Your task to perform on an android device: Search for seafood restaurants on Google Maps Image 0: 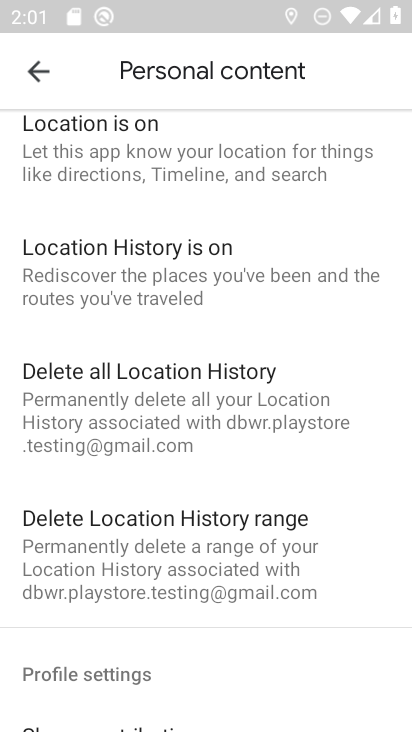
Step 0: click (27, 81)
Your task to perform on an android device: Search for seafood restaurants on Google Maps Image 1: 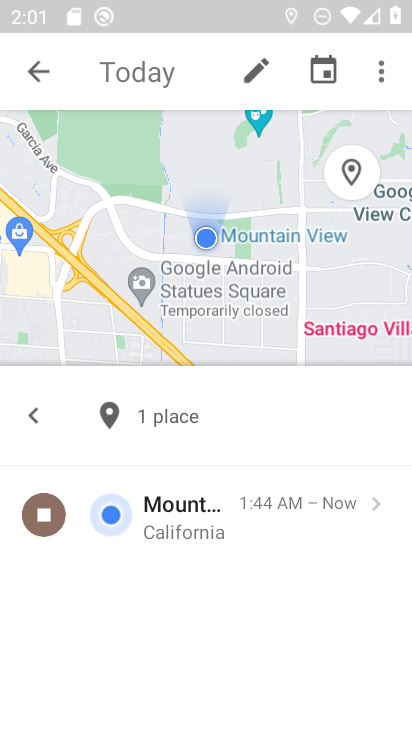
Step 1: press back button
Your task to perform on an android device: Search for seafood restaurants on Google Maps Image 2: 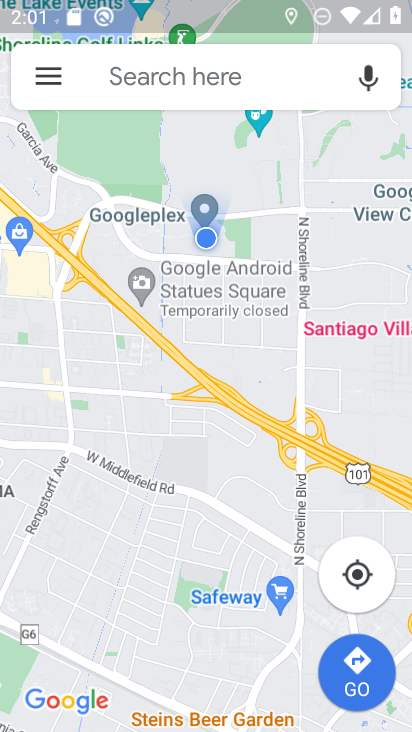
Step 2: click (100, 77)
Your task to perform on an android device: Search for seafood restaurants on Google Maps Image 3: 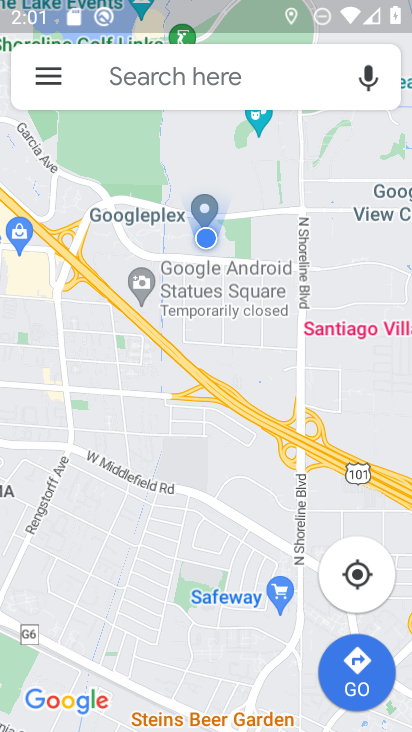
Step 3: click (107, 77)
Your task to perform on an android device: Search for seafood restaurants on Google Maps Image 4: 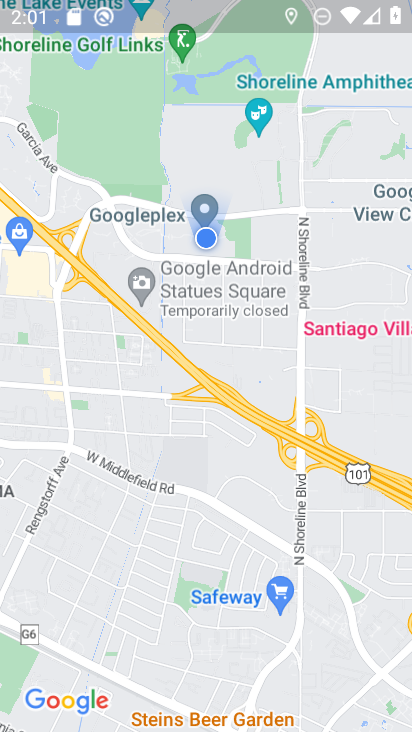
Step 4: drag from (171, 361) to (111, 173)
Your task to perform on an android device: Search for seafood restaurants on Google Maps Image 5: 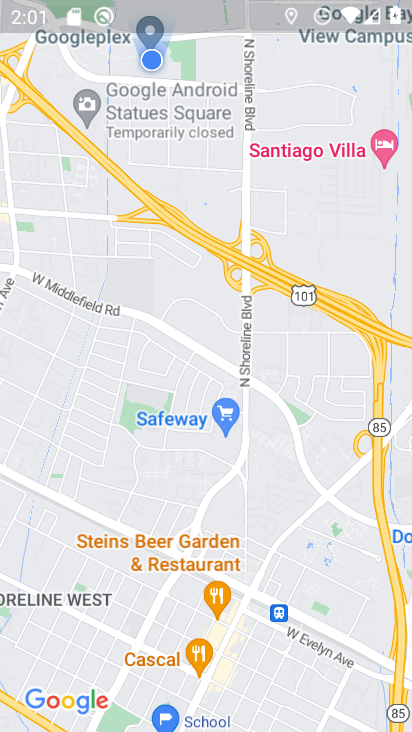
Step 5: drag from (172, 167) to (298, 411)
Your task to perform on an android device: Search for seafood restaurants on Google Maps Image 6: 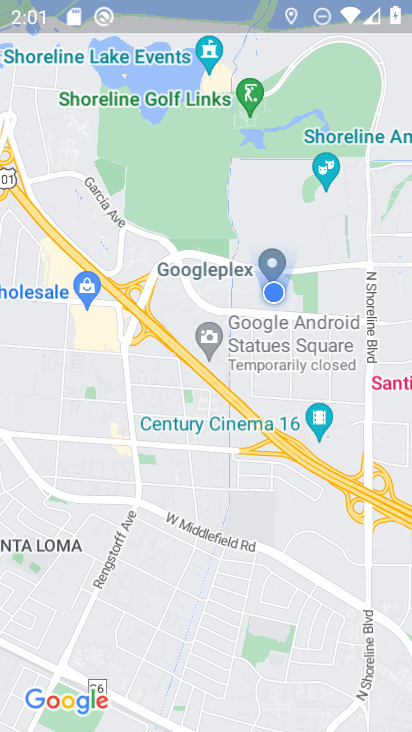
Step 6: drag from (180, 150) to (200, 489)
Your task to perform on an android device: Search for seafood restaurants on Google Maps Image 7: 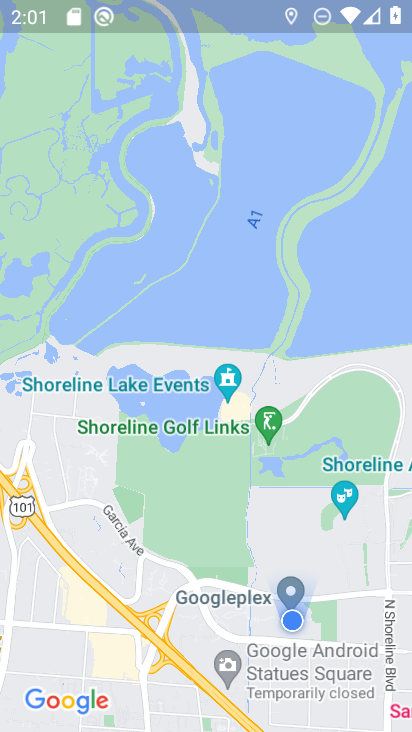
Step 7: press back button
Your task to perform on an android device: Search for seafood restaurants on Google Maps Image 8: 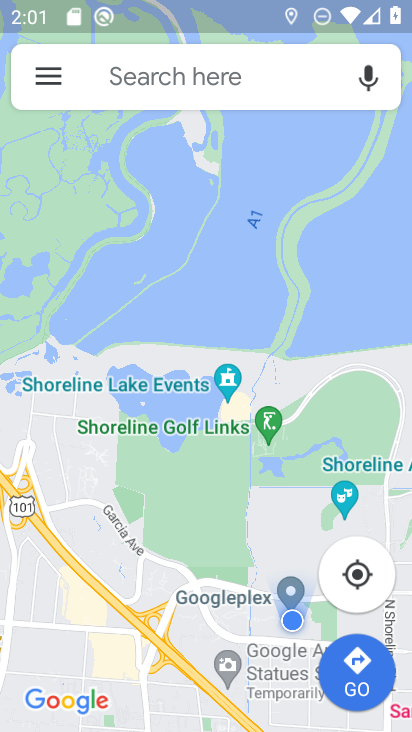
Step 8: click (117, 83)
Your task to perform on an android device: Search for seafood restaurants on Google Maps Image 9: 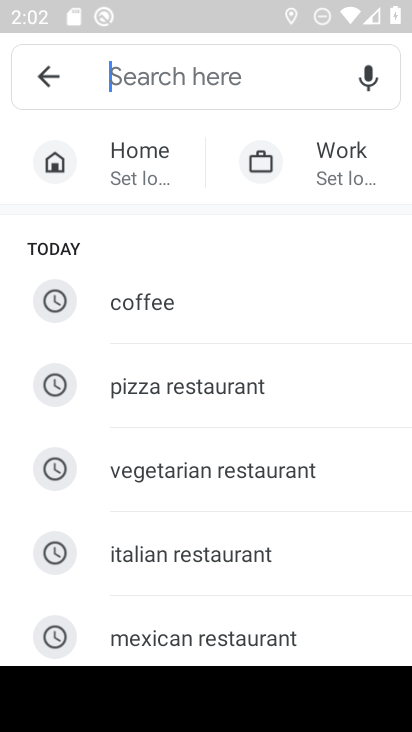
Step 9: type "sea"
Your task to perform on an android device: Search for seafood restaurants on Google Maps Image 10: 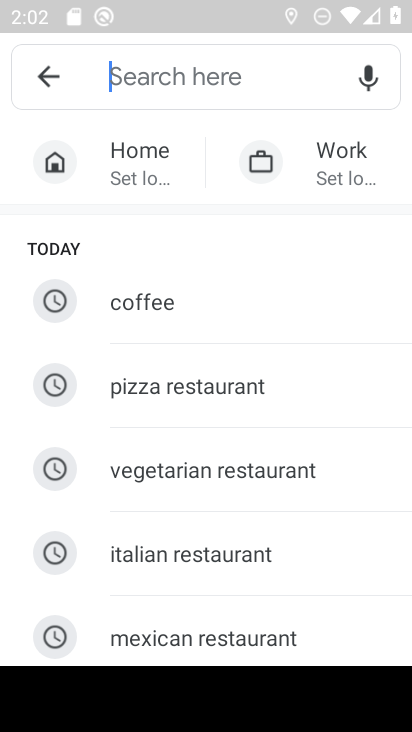
Step 10: click (162, 267)
Your task to perform on an android device: Search for seafood restaurants on Google Maps Image 11: 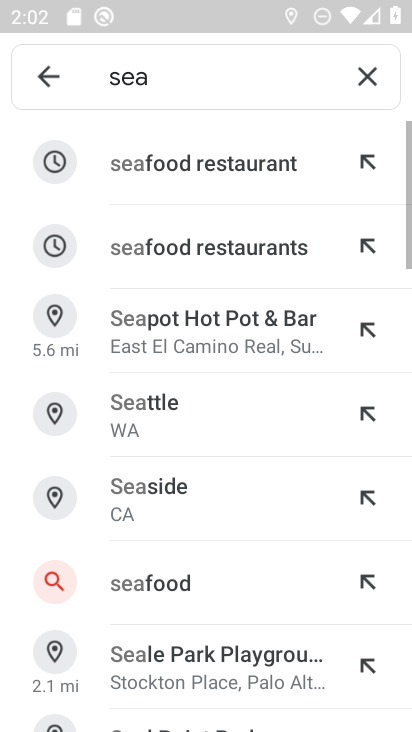
Step 11: drag from (188, 494) to (154, 200)
Your task to perform on an android device: Search for seafood restaurants on Google Maps Image 12: 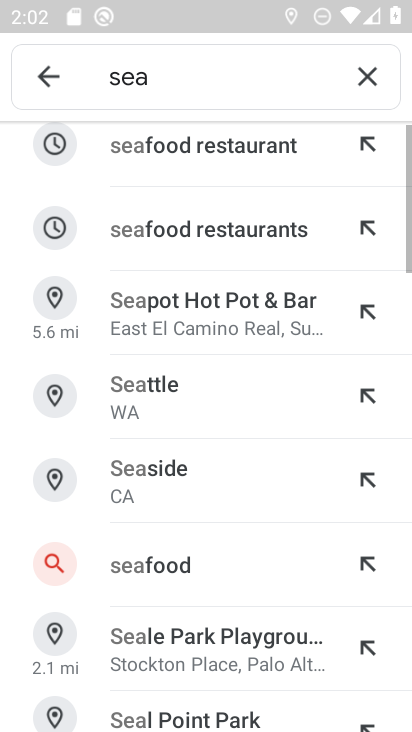
Step 12: click (237, 141)
Your task to perform on an android device: Search for seafood restaurants on Google Maps Image 13: 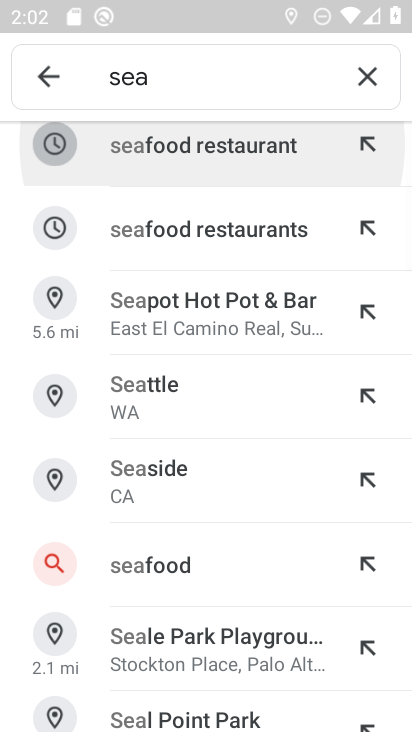
Step 13: click (237, 141)
Your task to perform on an android device: Search for seafood restaurants on Google Maps Image 14: 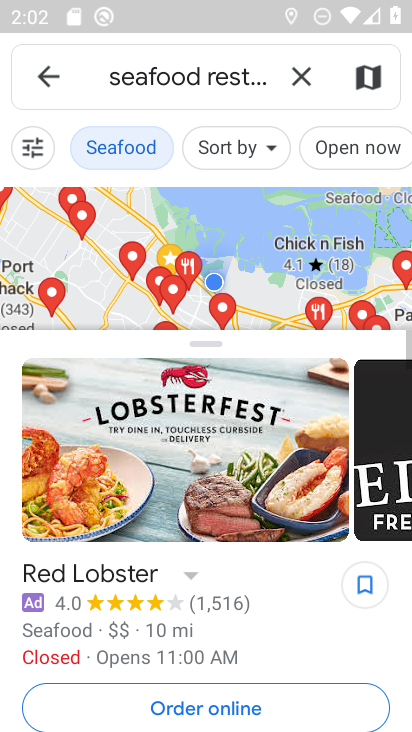
Step 14: task complete